Your task to perform on an android device: What's the weather going to be tomorrow? Image 0: 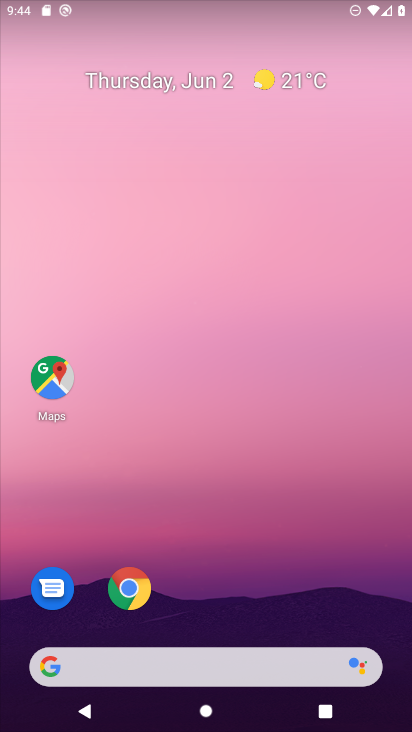
Step 0: click (247, 495)
Your task to perform on an android device: What's the weather going to be tomorrow? Image 1: 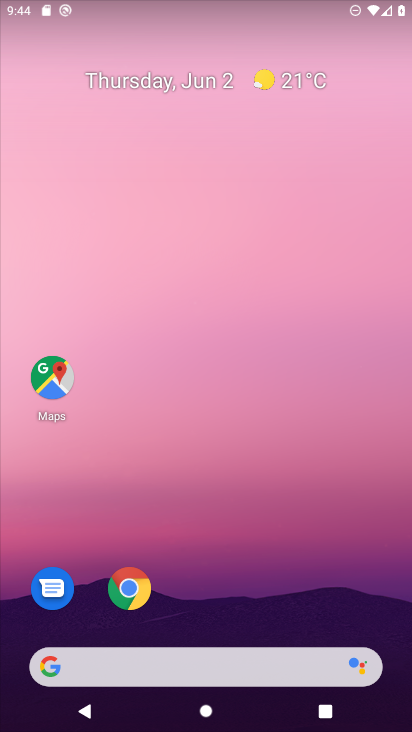
Step 1: drag from (212, 604) to (212, 473)
Your task to perform on an android device: What's the weather going to be tomorrow? Image 2: 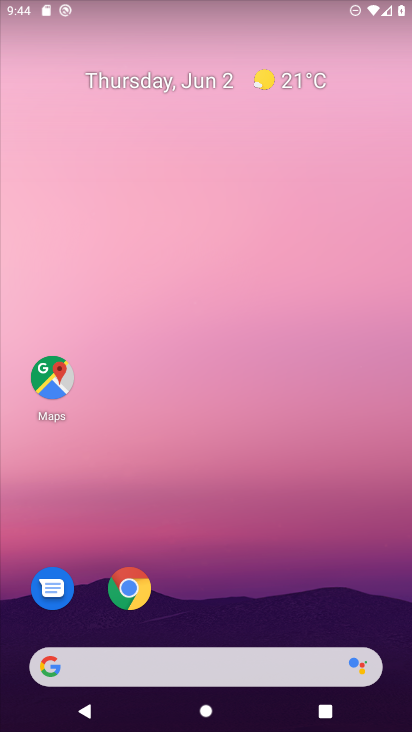
Step 2: drag from (230, 541) to (280, 200)
Your task to perform on an android device: What's the weather going to be tomorrow? Image 3: 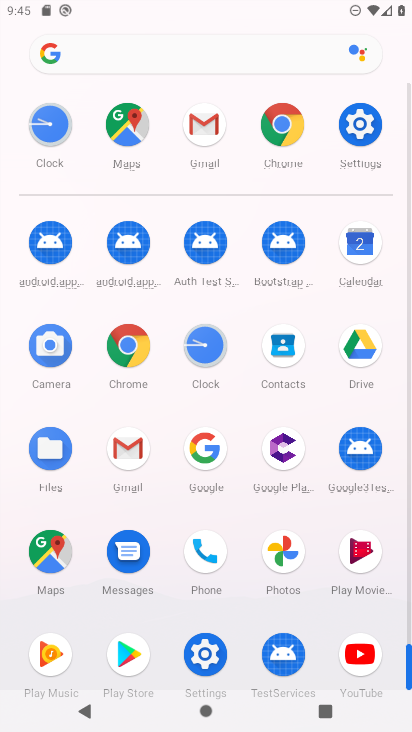
Step 3: click (199, 457)
Your task to perform on an android device: What's the weather going to be tomorrow? Image 4: 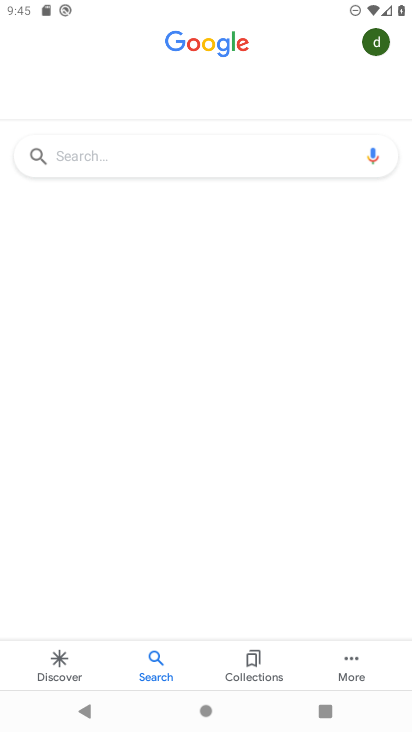
Step 4: click (177, 170)
Your task to perform on an android device: What's the weather going to be tomorrow? Image 5: 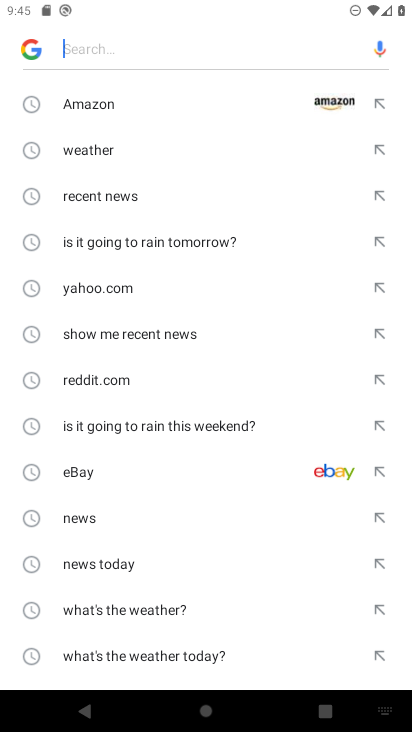
Step 5: click (159, 157)
Your task to perform on an android device: What's the weather going to be tomorrow? Image 6: 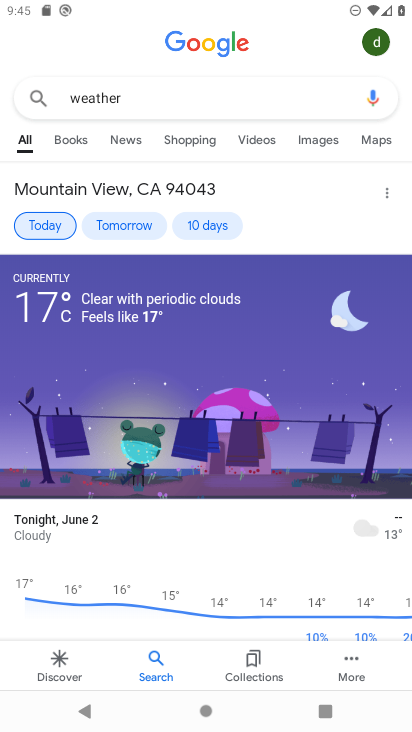
Step 6: click (124, 231)
Your task to perform on an android device: What's the weather going to be tomorrow? Image 7: 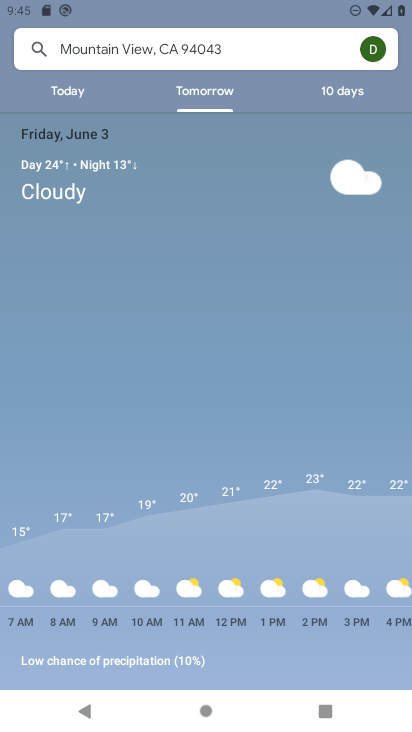
Step 7: task complete